Your task to perform on an android device: turn on airplane mode Image 0: 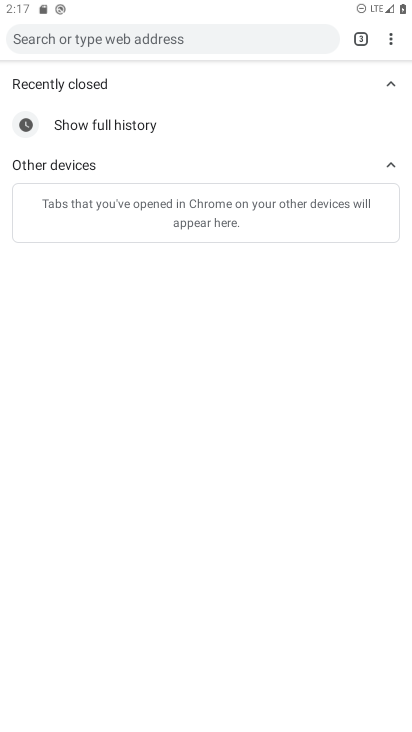
Step 0: press home button
Your task to perform on an android device: turn on airplane mode Image 1: 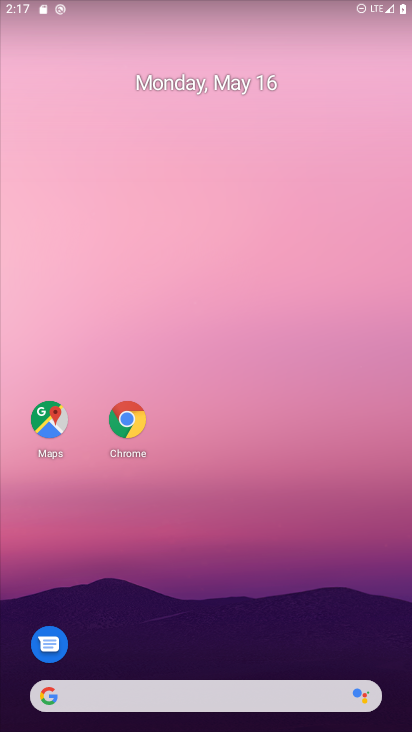
Step 1: drag from (189, 637) to (118, 33)
Your task to perform on an android device: turn on airplane mode Image 2: 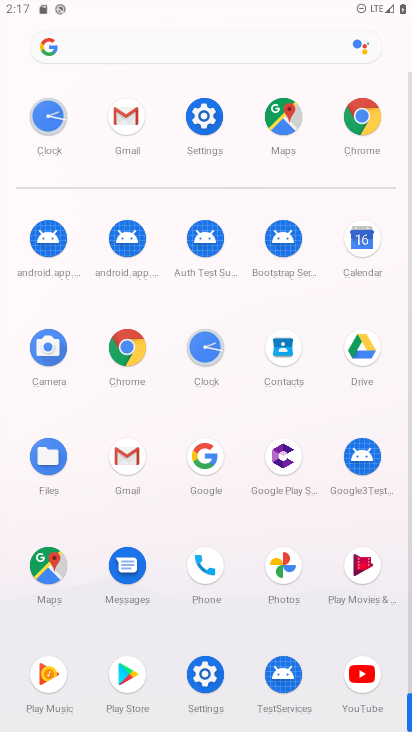
Step 2: click (206, 117)
Your task to perform on an android device: turn on airplane mode Image 3: 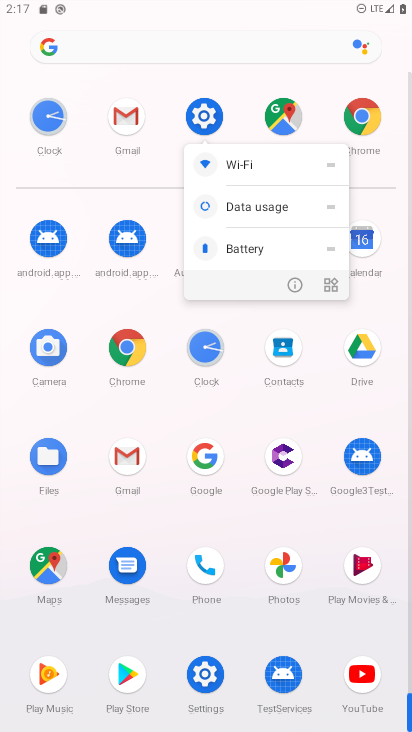
Step 3: click (288, 288)
Your task to perform on an android device: turn on airplane mode Image 4: 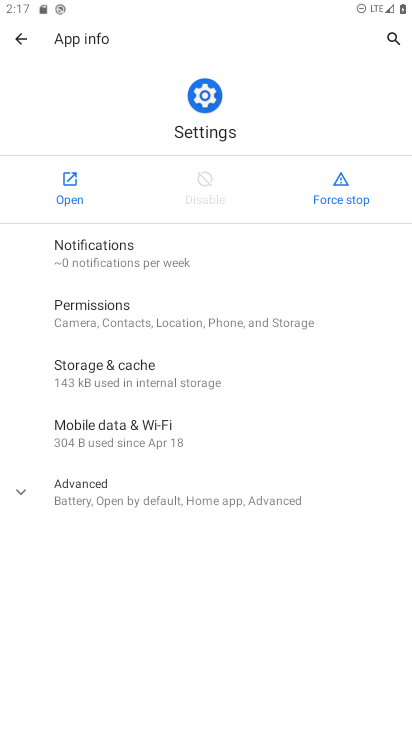
Step 4: click (73, 178)
Your task to perform on an android device: turn on airplane mode Image 5: 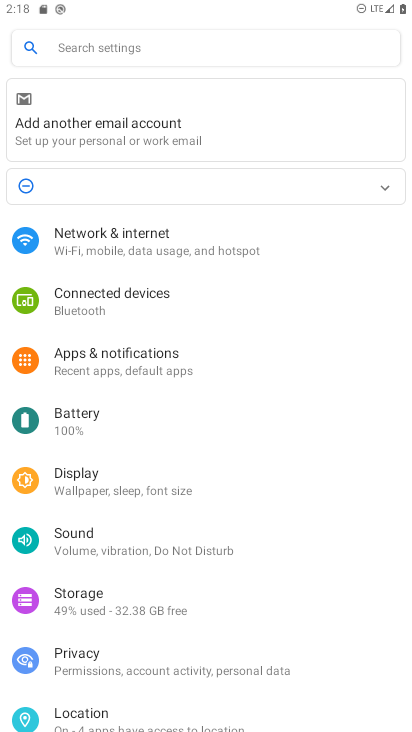
Step 5: click (124, 242)
Your task to perform on an android device: turn on airplane mode Image 6: 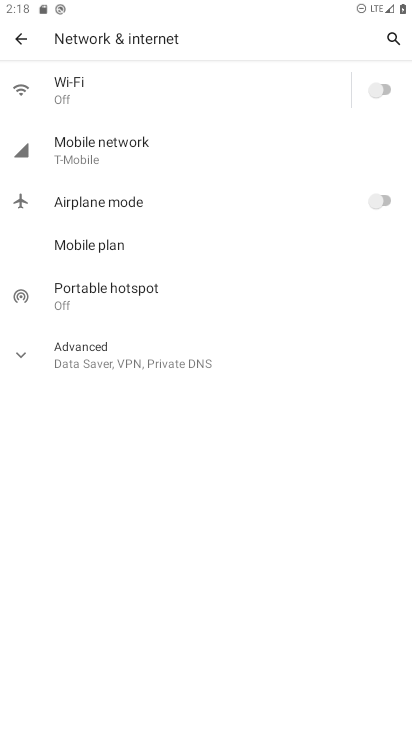
Step 6: click (150, 203)
Your task to perform on an android device: turn on airplane mode Image 7: 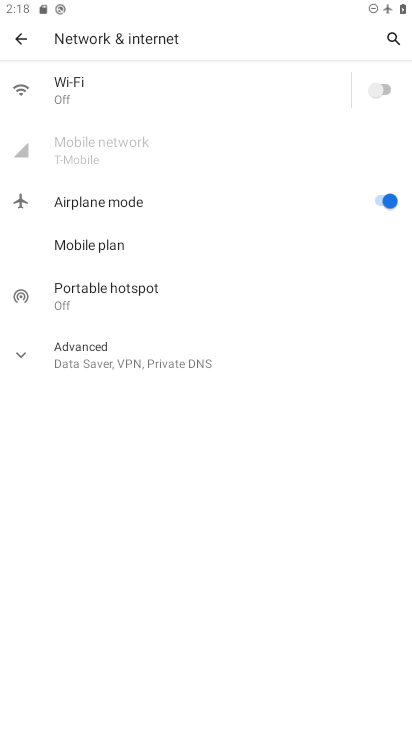
Step 7: task complete